Your task to perform on an android device: check android version Image 0: 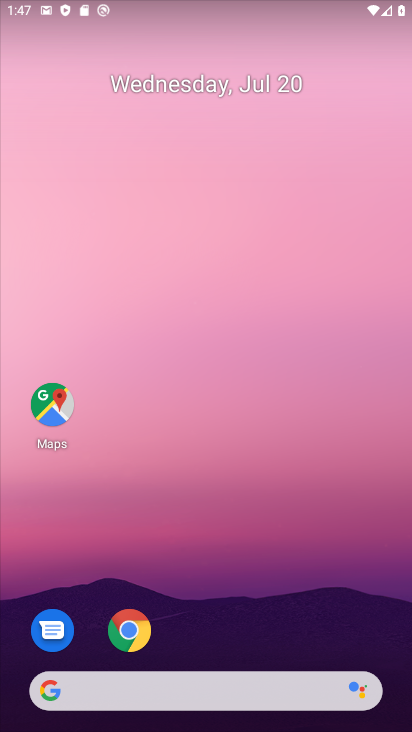
Step 0: drag from (179, 703) to (245, 142)
Your task to perform on an android device: check android version Image 1: 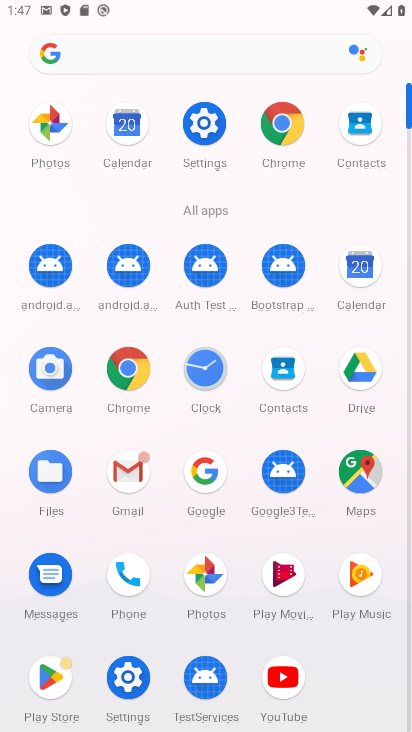
Step 1: click (203, 123)
Your task to perform on an android device: check android version Image 2: 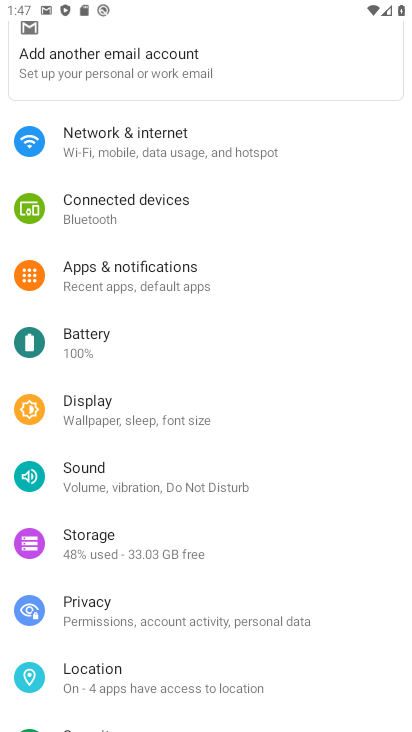
Step 2: drag from (139, 520) to (147, 368)
Your task to perform on an android device: check android version Image 3: 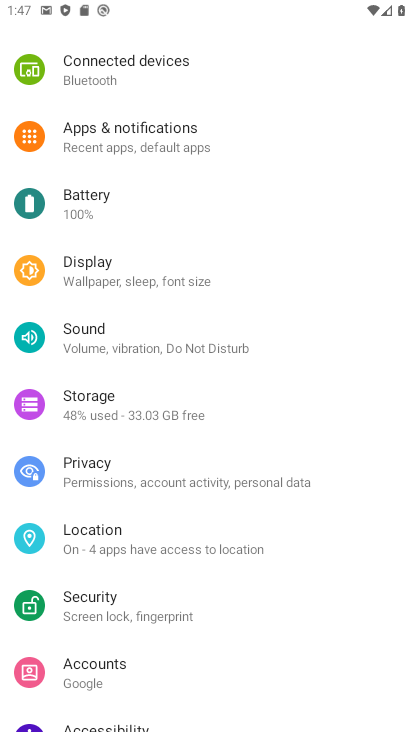
Step 3: drag from (122, 611) to (234, 443)
Your task to perform on an android device: check android version Image 4: 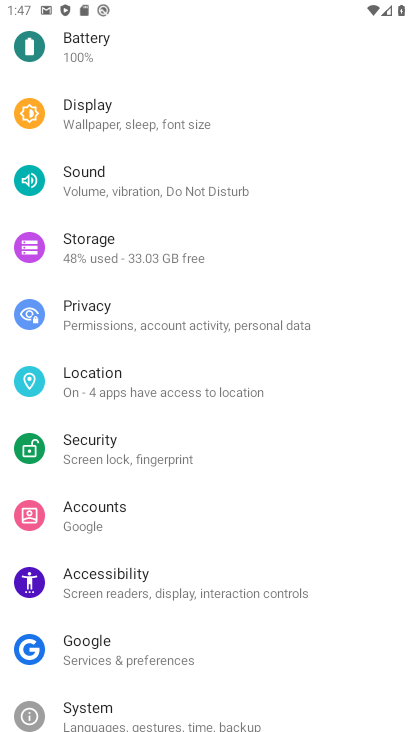
Step 4: drag from (142, 614) to (241, 467)
Your task to perform on an android device: check android version Image 5: 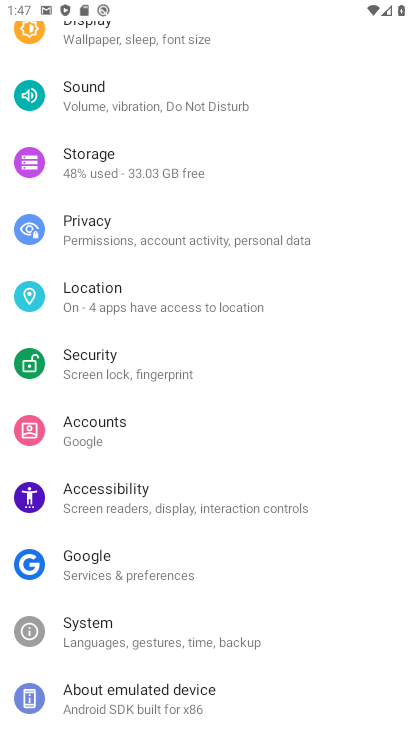
Step 5: drag from (157, 658) to (273, 521)
Your task to perform on an android device: check android version Image 6: 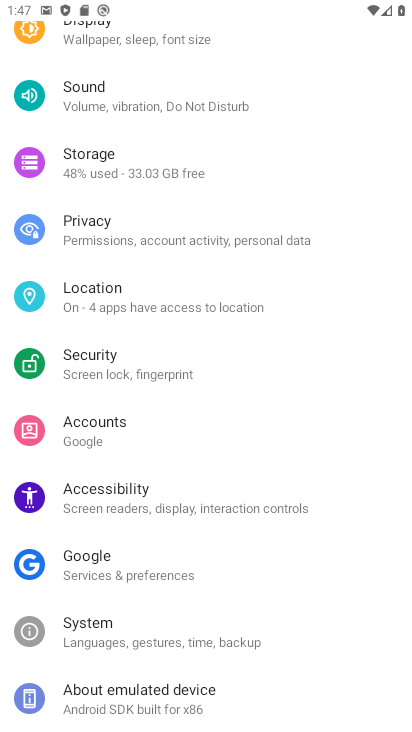
Step 6: click (179, 685)
Your task to perform on an android device: check android version Image 7: 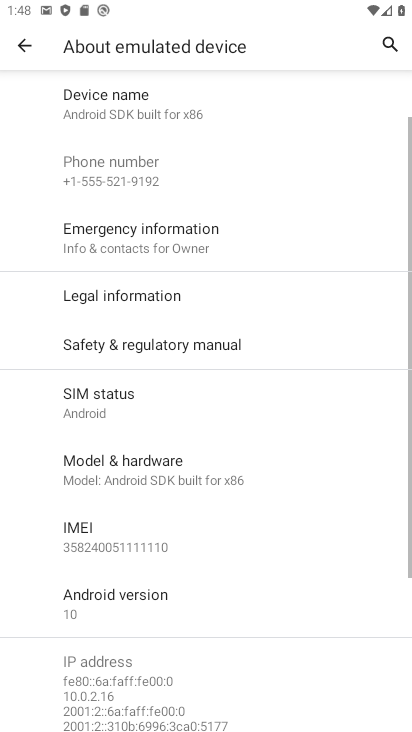
Step 7: click (112, 595)
Your task to perform on an android device: check android version Image 8: 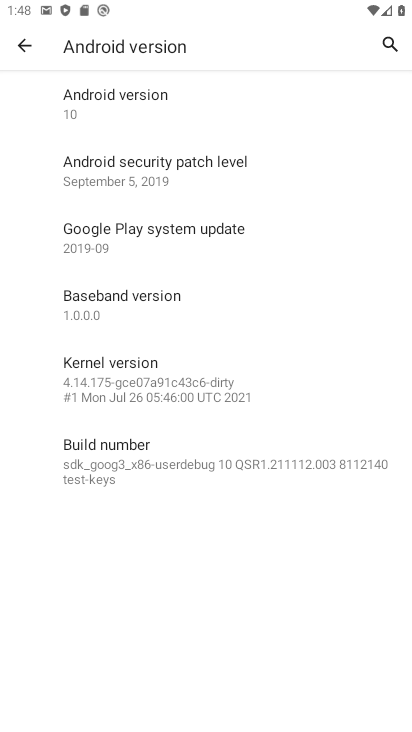
Step 8: task complete